Your task to perform on an android device: Go to location settings Image 0: 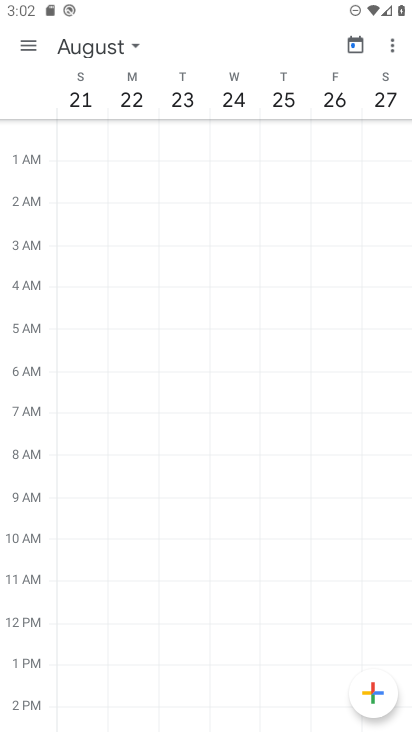
Step 0: press home button
Your task to perform on an android device: Go to location settings Image 1: 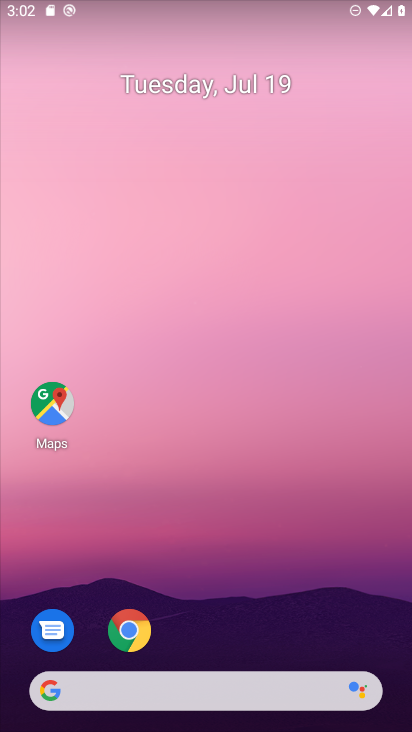
Step 1: drag from (376, 615) to (343, 216)
Your task to perform on an android device: Go to location settings Image 2: 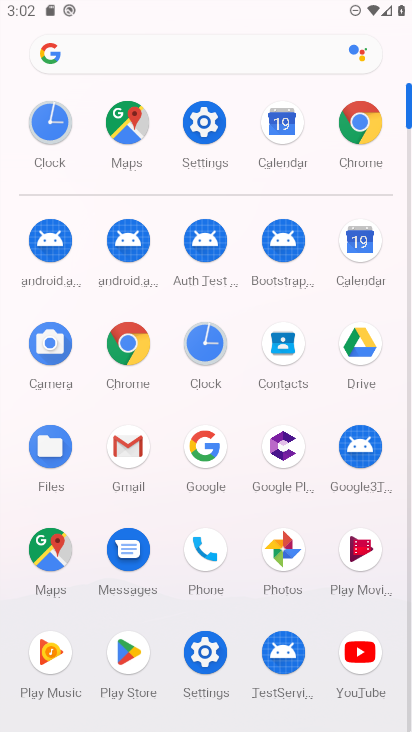
Step 2: click (203, 646)
Your task to perform on an android device: Go to location settings Image 3: 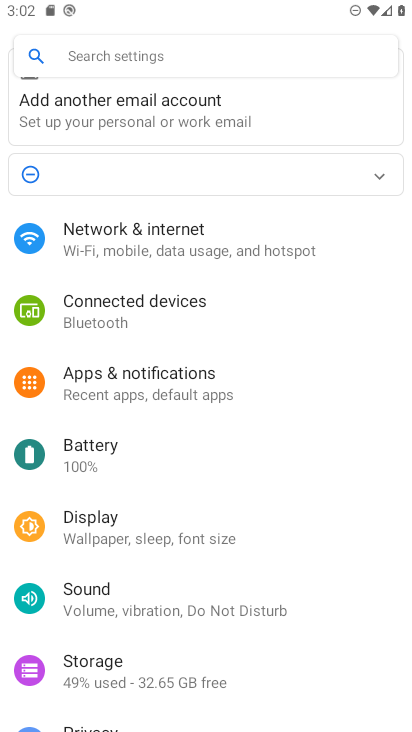
Step 3: drag from (234, 591) to (234, 184)
Your task to perform on an android device: Go to location settings Image 4: 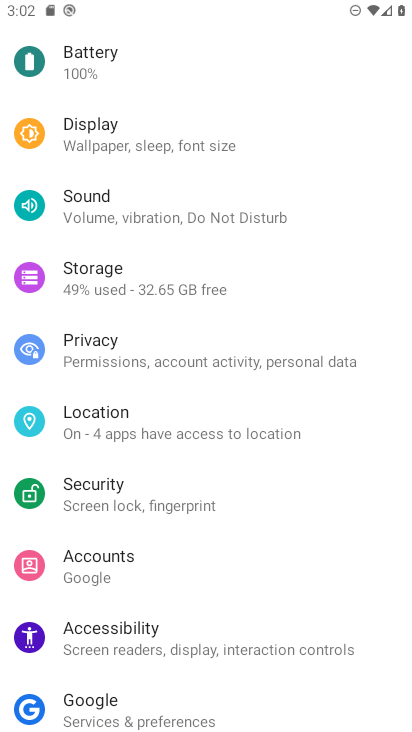
Step 4: click (116, 418)
Your task to perform on an android device: Go to location settings Image 5: 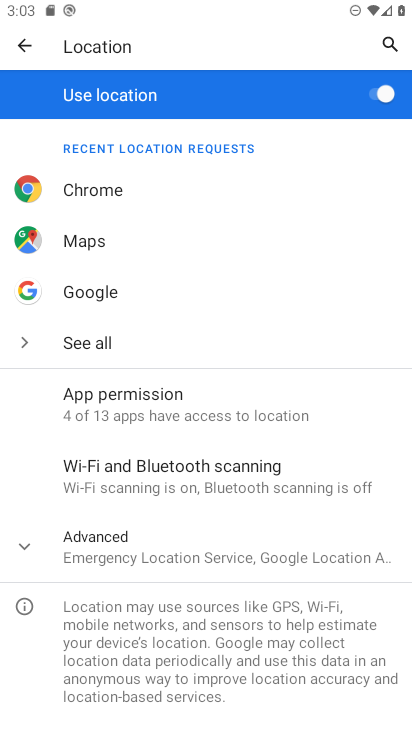
Step 5: click (26, 544)
Your task to perform on an android device: Go to location settings Image 6: 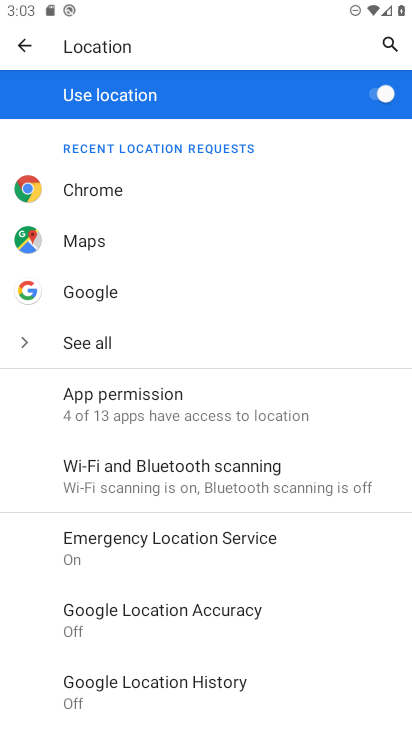
Step 6: task complete